Your task to perform on an android device: turn smart compose on in the gmail app Image 0: 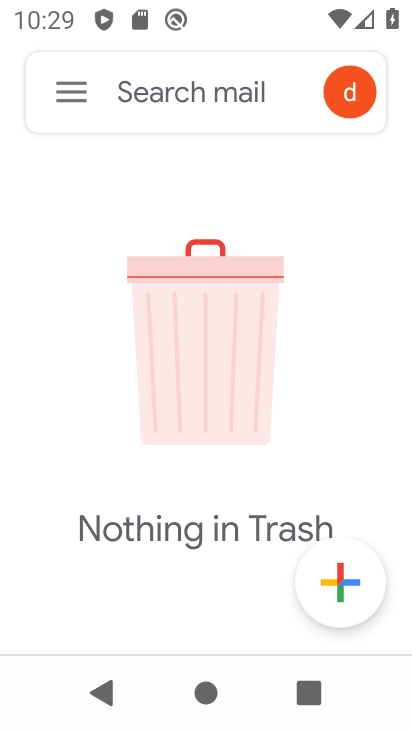
Step 0: click (75, 97)
Your task to perform on an android device: turn smart compose on in the gmail app Image 1: 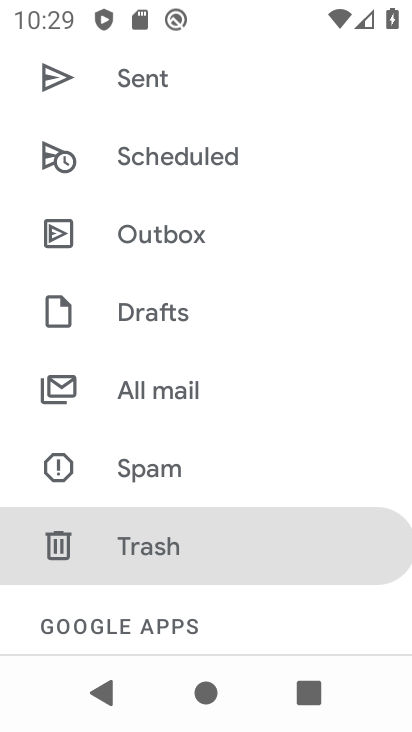
Step 1: drag from (253, 547) to (257, 220)
Your task to perform on an android device: turn smart compose on in the gmail app Image 2: 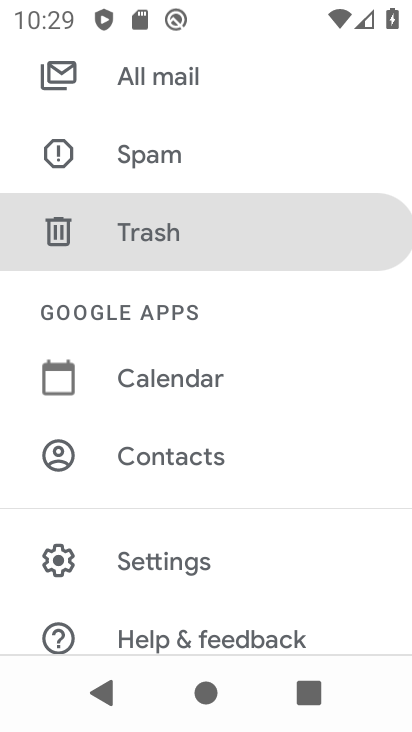
Step 2: click (194, 573)
Your task to perform on an android device: turn smart compose on in the gmail app Image 3: 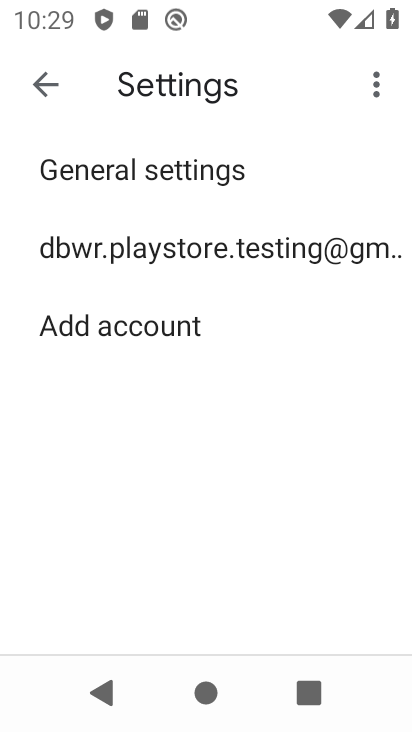
Step 3: click (251, 251)
Your task to perform on an android device: turn smart compose on in the gmail app Image 4: 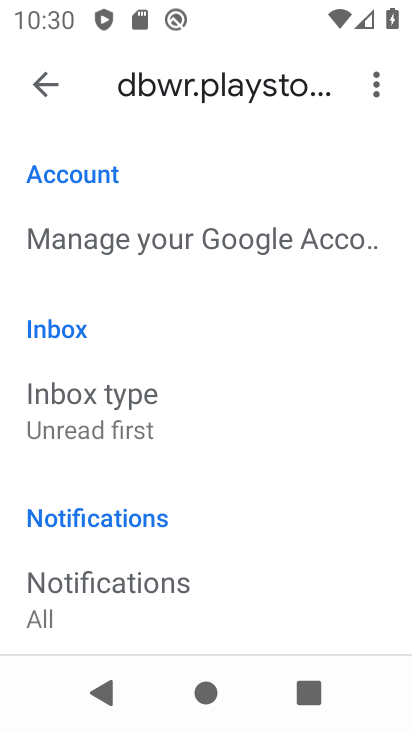
Step 4: task complete